Your task to perform on an android device: Do I have any events this weekend? Image 0: 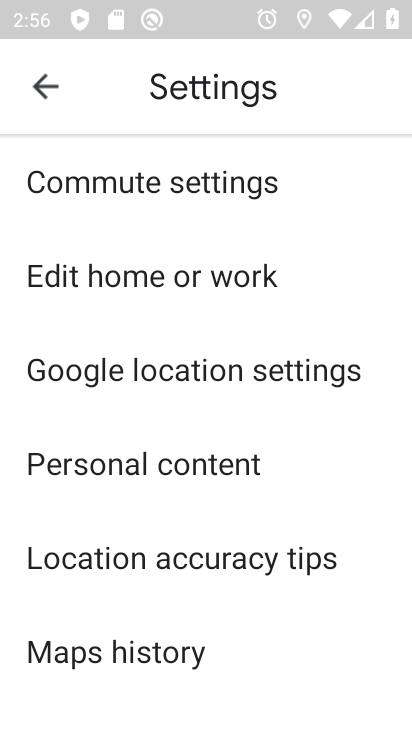
Step 0: press home button
Your task to perform on an android device: Do I have any events this weekend? Image 1: 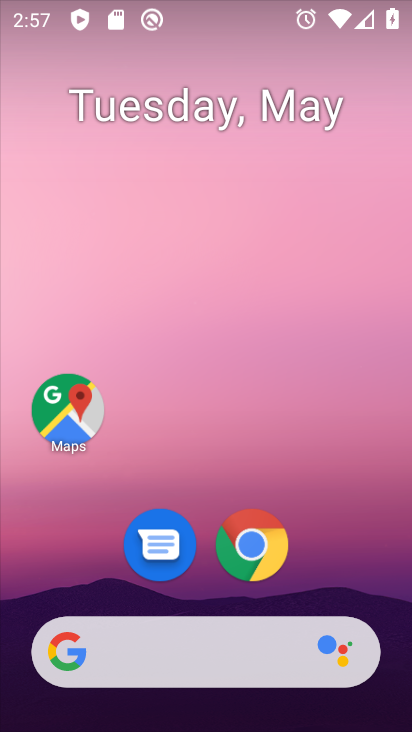
Step 1: drag from (228, 624) to (250, 155)
Your task to perform on an android device: Do I have any events this weekend? Image 2: 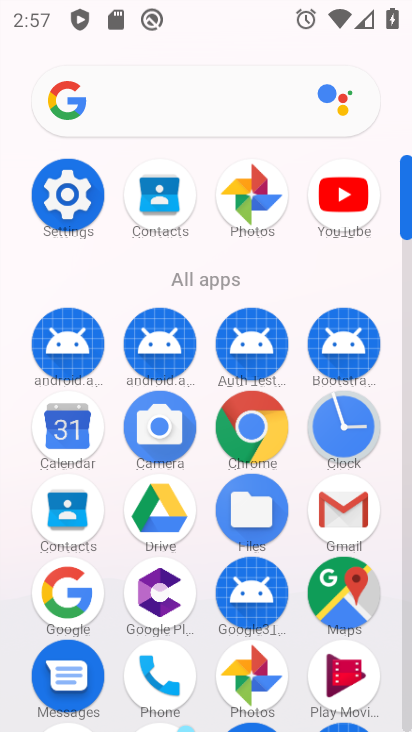
Step 2: click (91, 426)
Your task to perform on an android device: Do I have any events this weekend? Image 3: 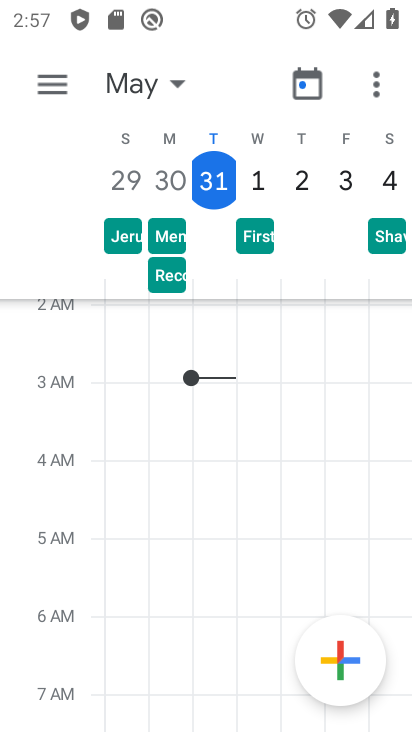
Step 3: task complete